Your task to perform on an android device: snooze an email in the gmail app Image 0: 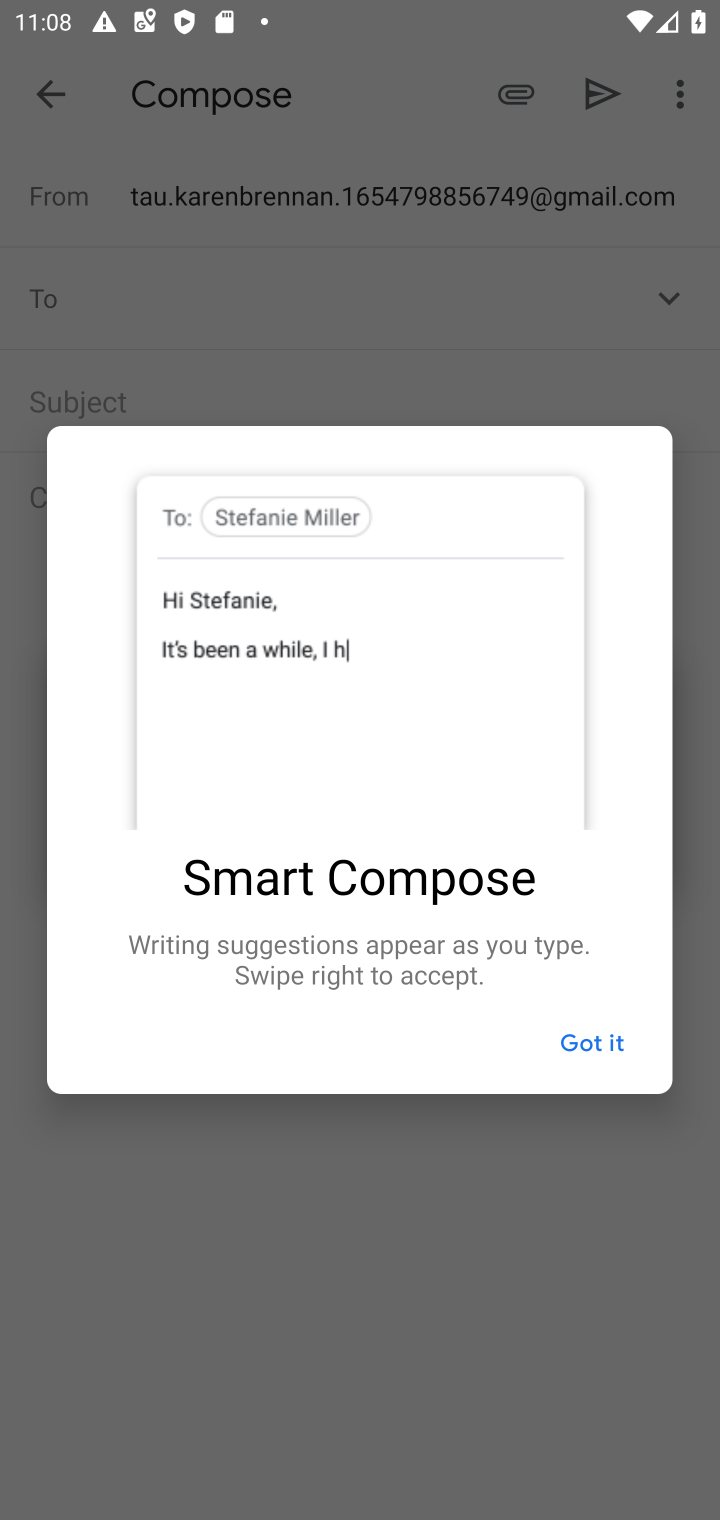
Step 0: press home button
Your task to perform on an android device: snooze an email in the gmail app Image 1: 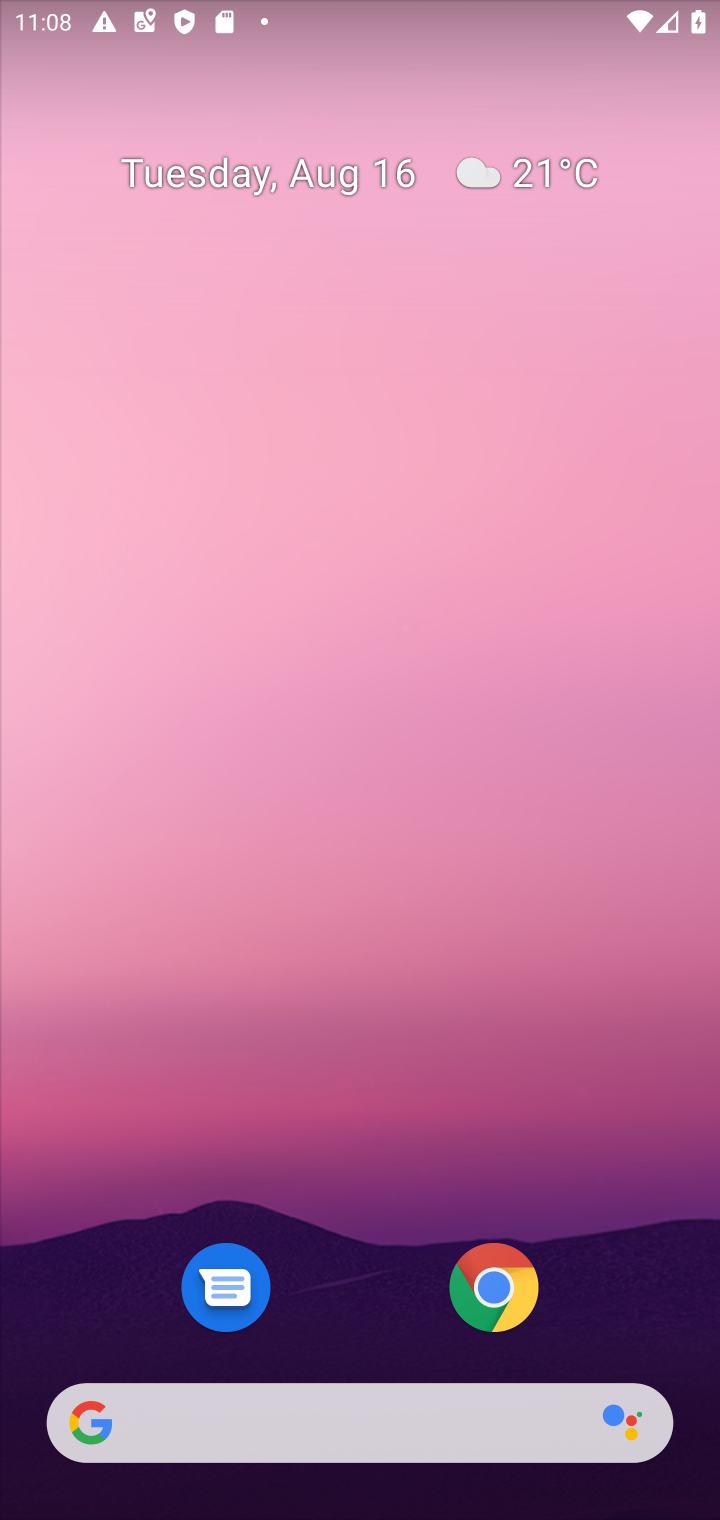
Step 1: drag from (653, 1307) to (589, 210)
Your task to perform on an android device: snooze an email in the gmail app Image 2: 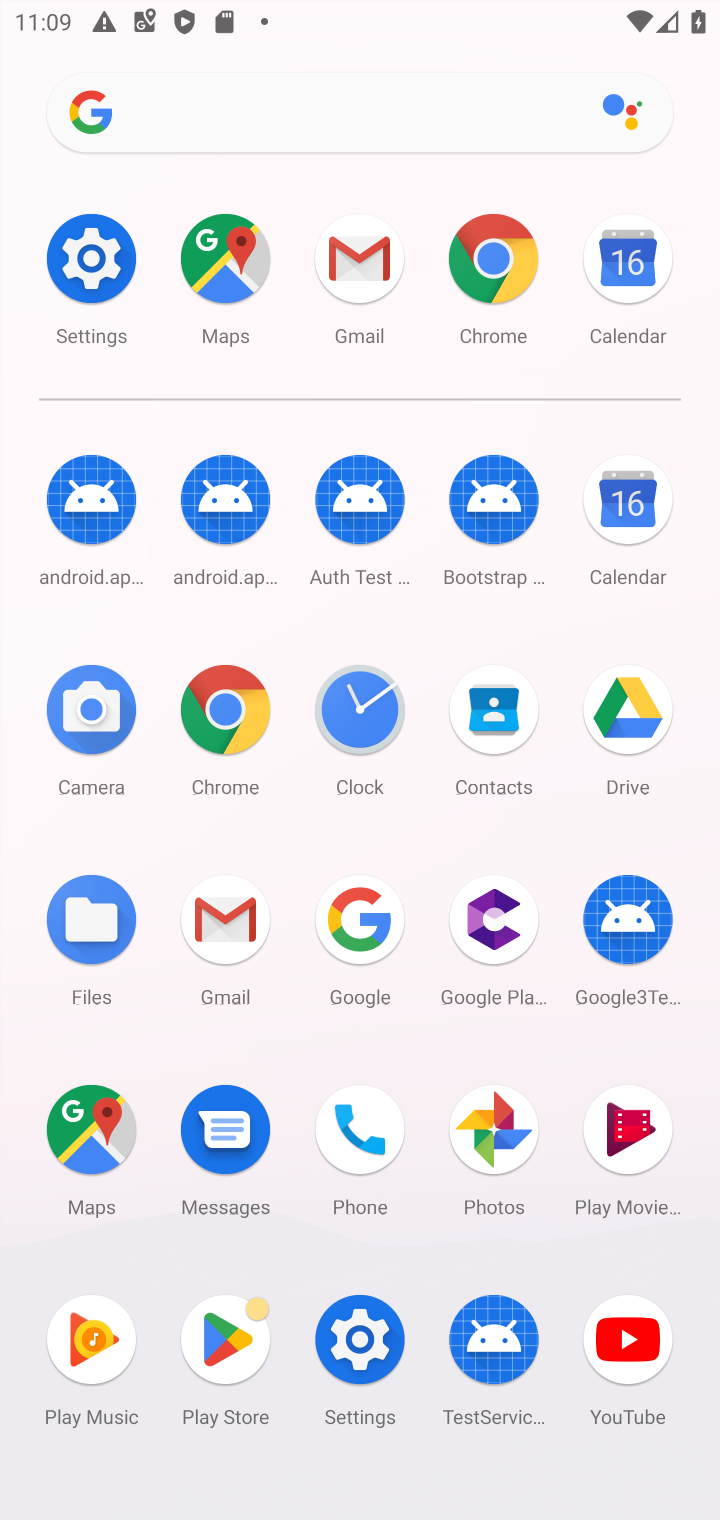
Step 2: click (221, 916)
Your task to perform on an android device: snooze an email in the gmail app Image 3: 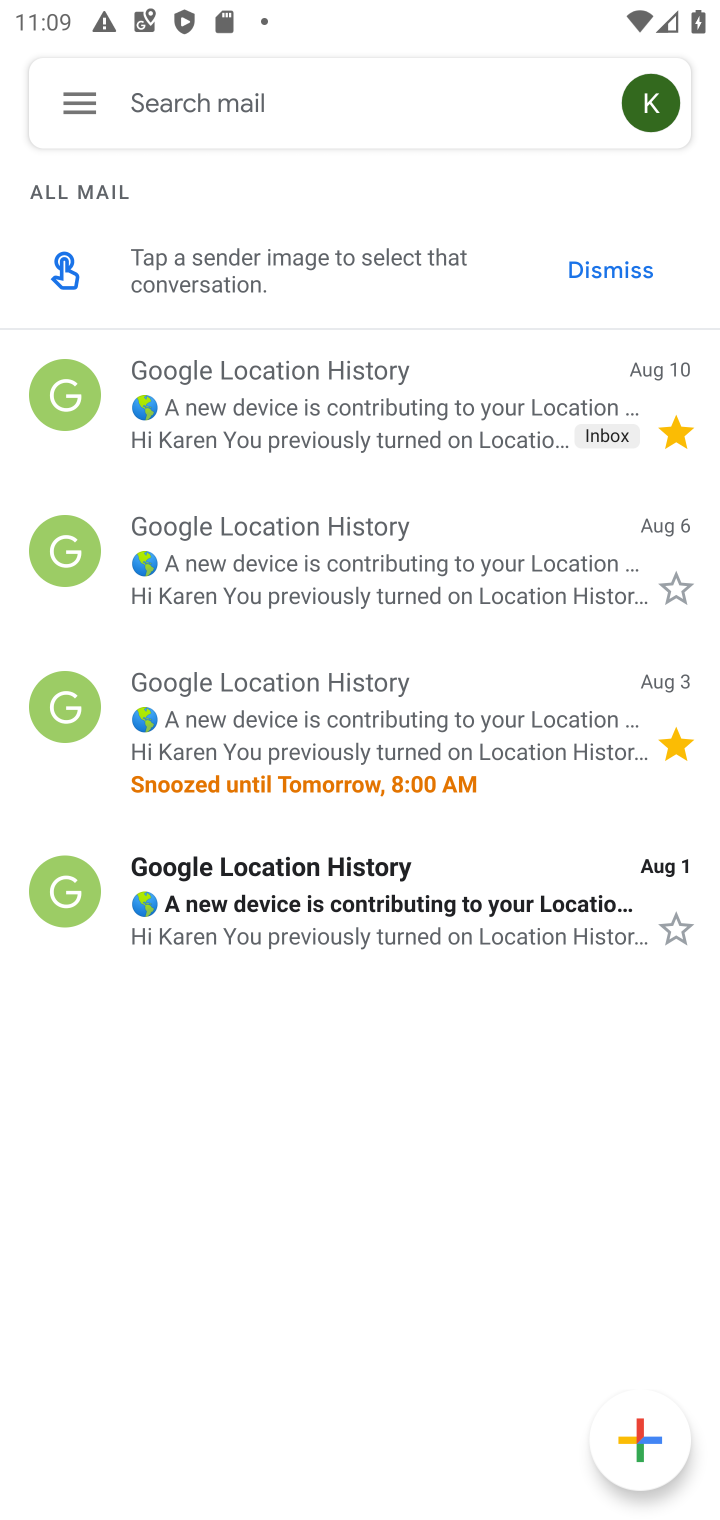
Step 3: click (331, 568)
Your task to perform on an android device: snooze an email in the gmail app Image 4: 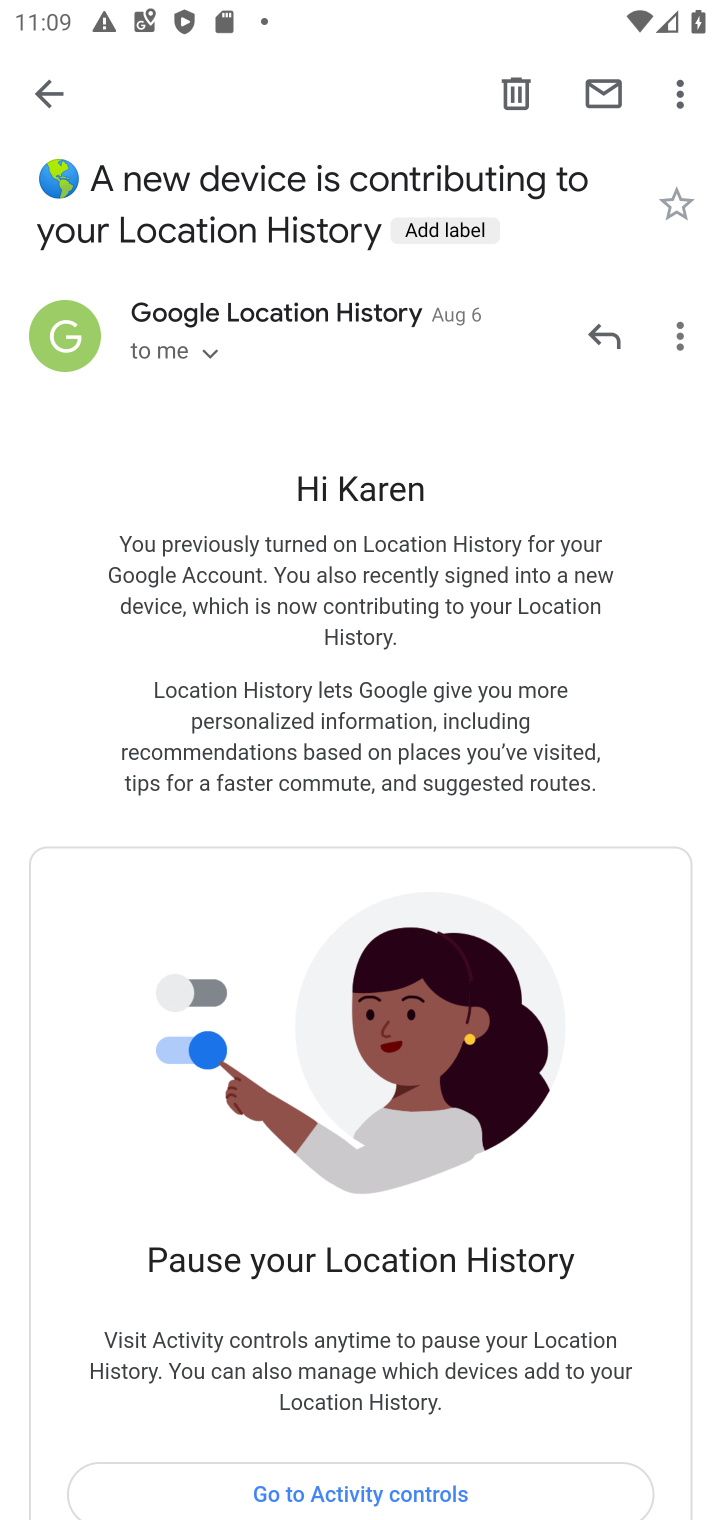
Step 4: click (664, 103)
Your task to perform on an android device: snooze an email in the gmail app Image 5: 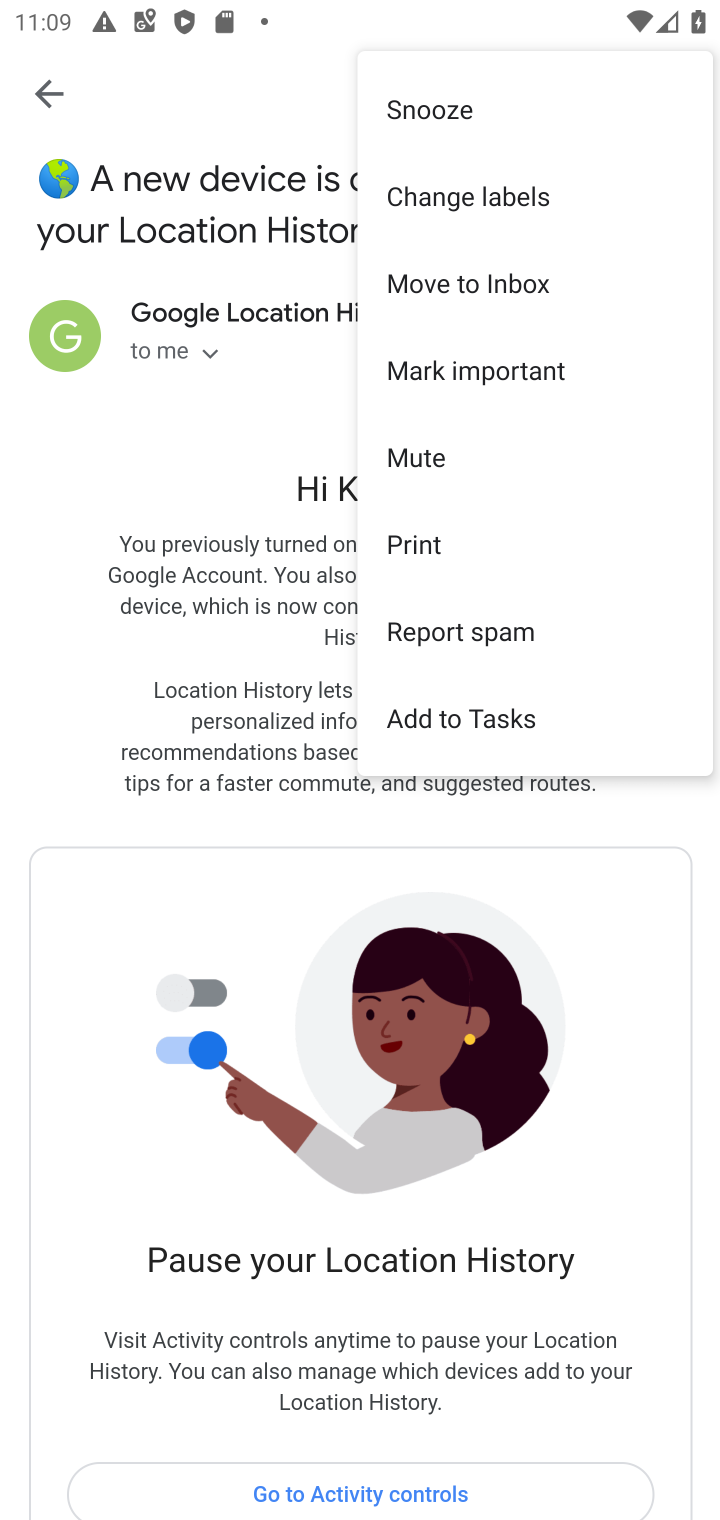
Step 5: click (408, 106)
Your task to perform on an android device: snooze an email in the gmail app Image 6: 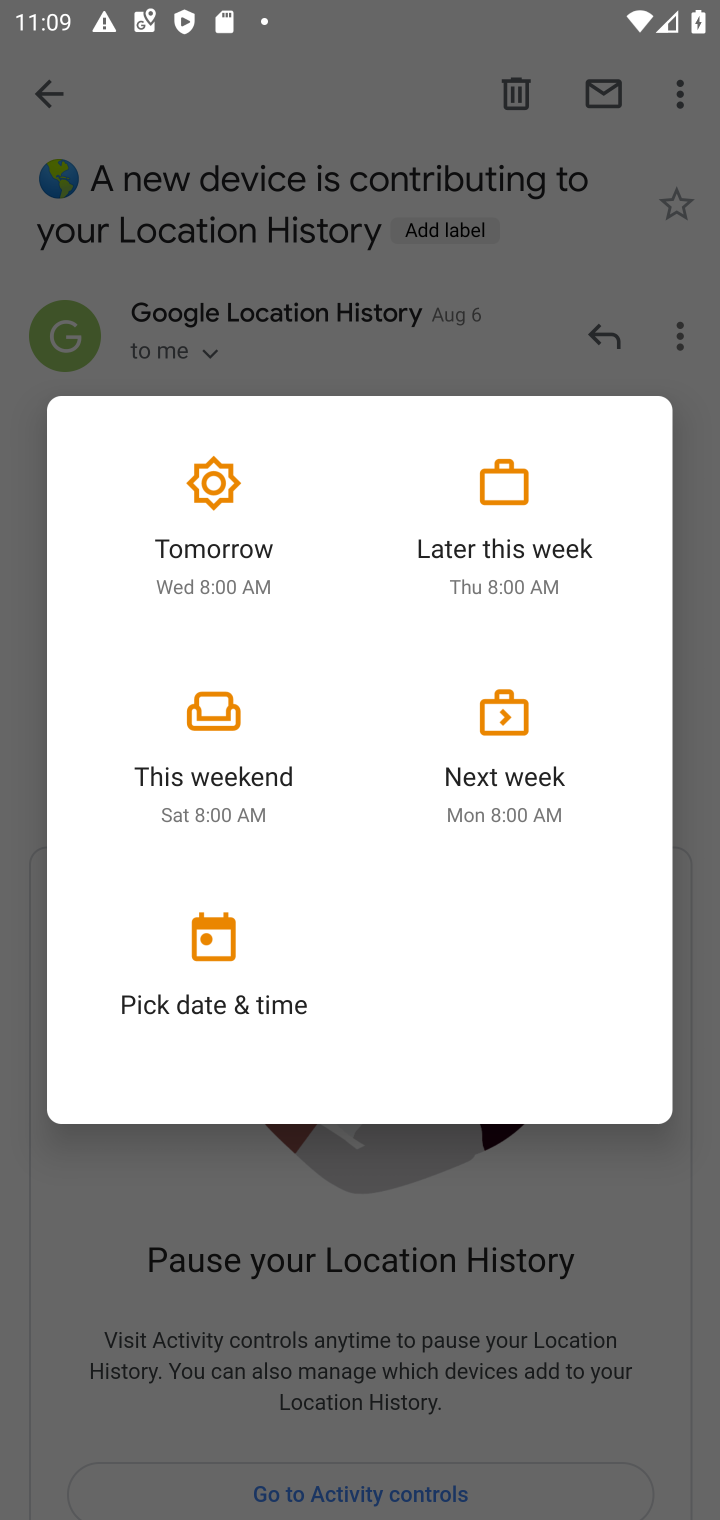
Step 6: click (208, 529)
Your task to perform on an android device: snooze an email in the gmail app Image 7: 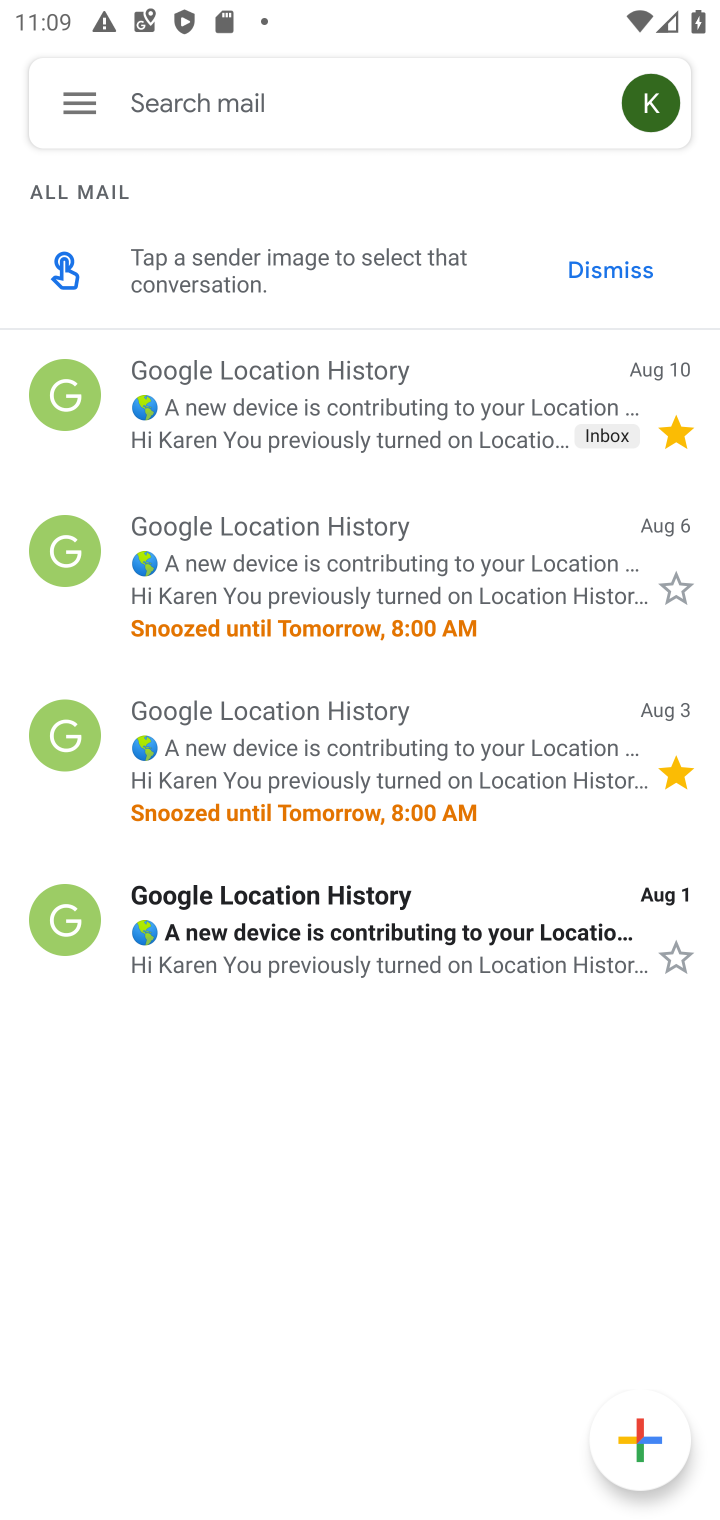
Step 7: task complete